Your task to perform on an android device: Open Yahoo.com Image 0: 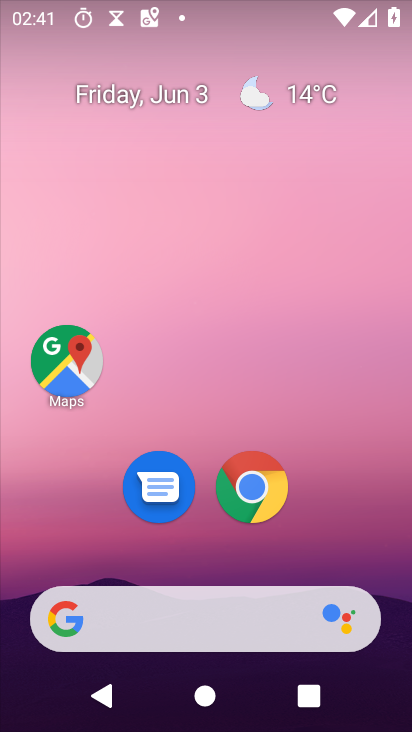
Step 0: click (258, 470)
Your task to perform on an android device: Open Yahoo.com Image 1: 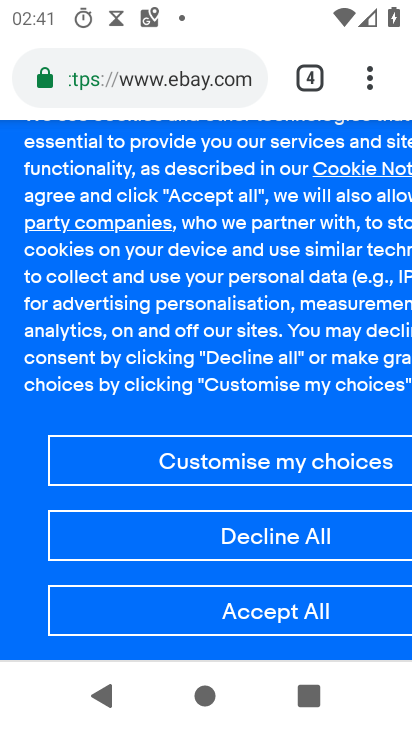
Step 1: click (307, 82)
Your task to perform on an android device: Open Yahoo.com Image 2: 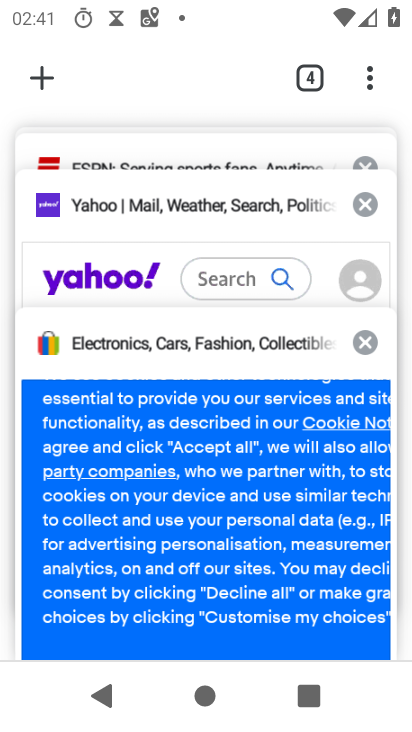
Step 2: click (122, 265)
Your task to perform on an android device: Open Yahoo.com Image 3: 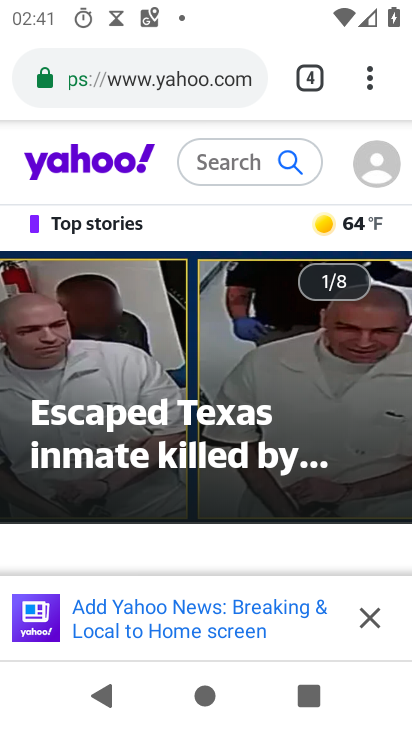
Step 3: task complete